Your task to perform on an android device: Go to Google Image 0: 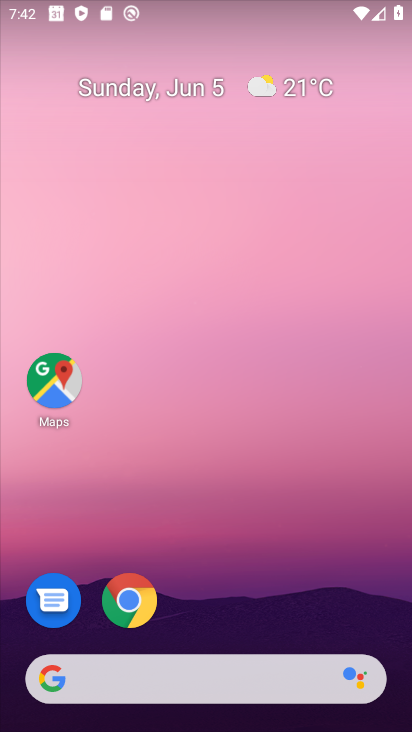
Step 0: drag from (145, 731) to (102, 10)
Your task to perform on an android device: Go to Google Image 1: 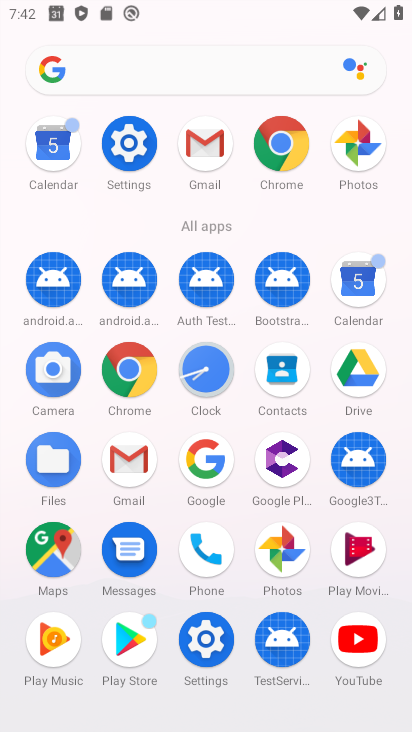
Step 1: click (208, 466)
Your task to perform on an android device: Go to Google Image 2: 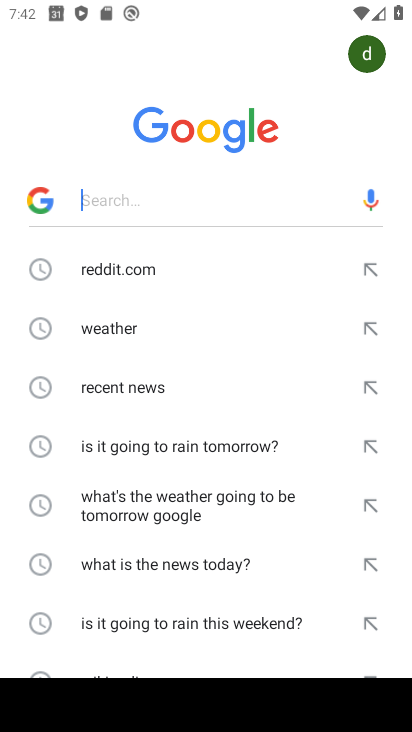
Step 2: task complete